Your task to perform on an android device: toggle location history Image 0: 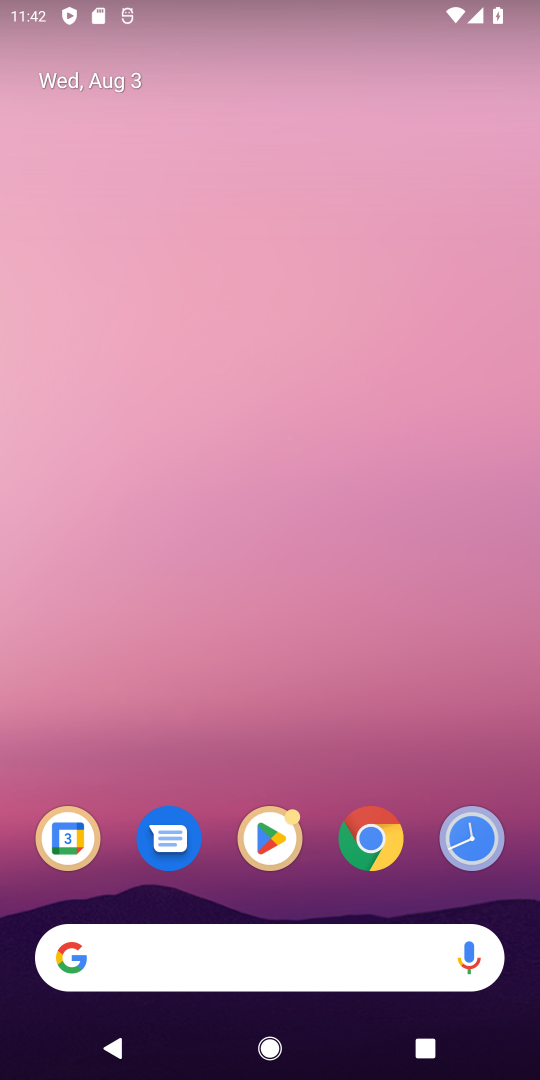
Step 0: drag from (363, 755) to (365, 314)
Your task to perform on an android device: toggle location history Image 1: 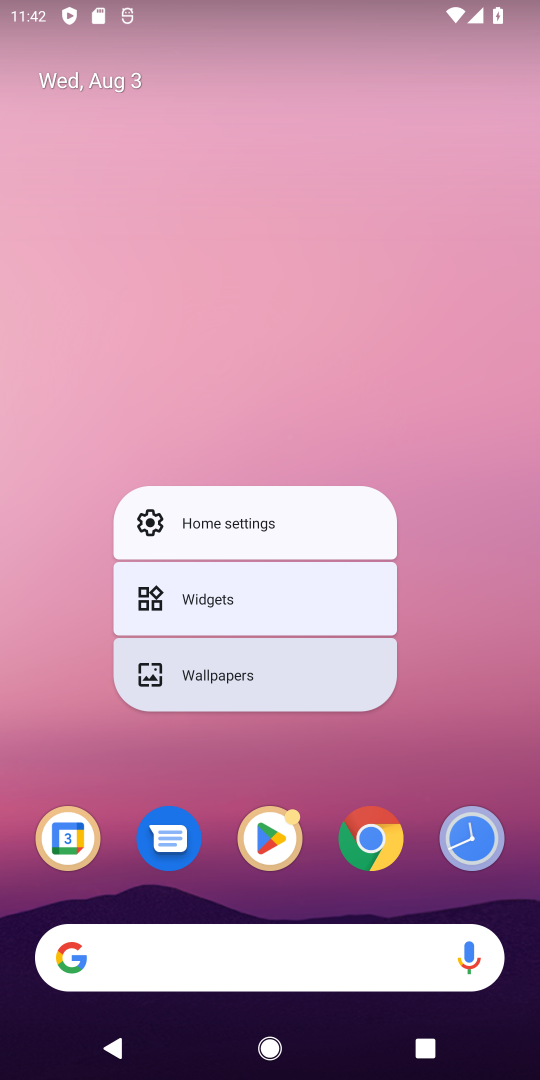
Step 1: click (475, 703)
Your task to perform on an android device: toggle location history Image 2: 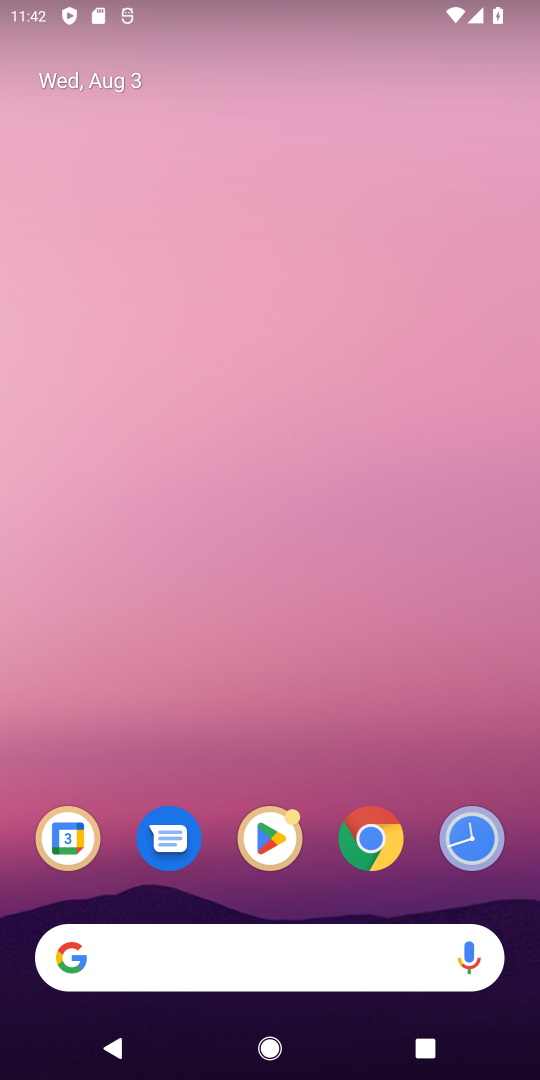
Step 2: drag from (403, 733) to (385, 243)
Your task to perform on an android device: toggle location history Image 3: 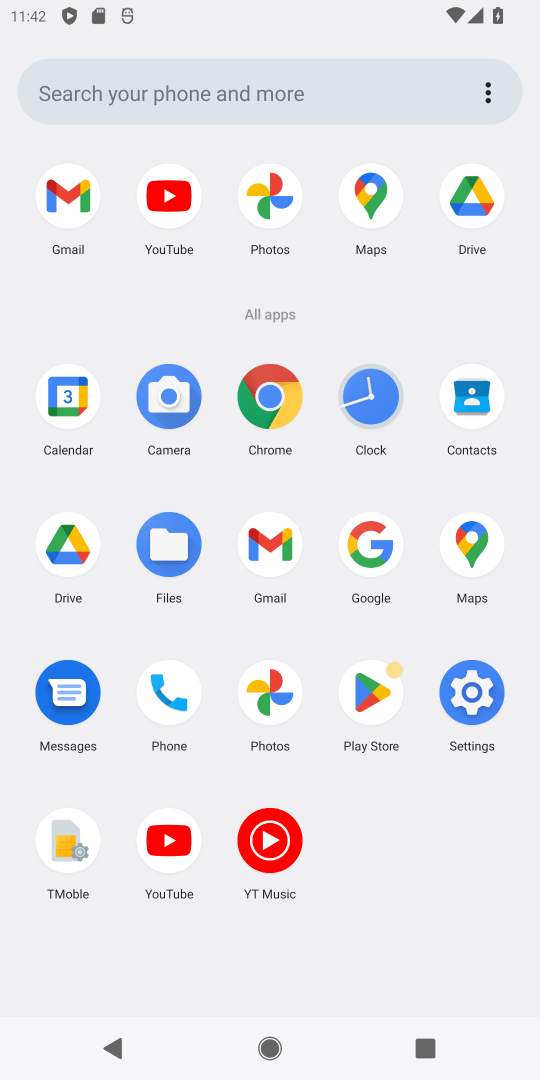
Step 3: click (489, 695)
Your task to perform on an android device: toggle location history Image 4: 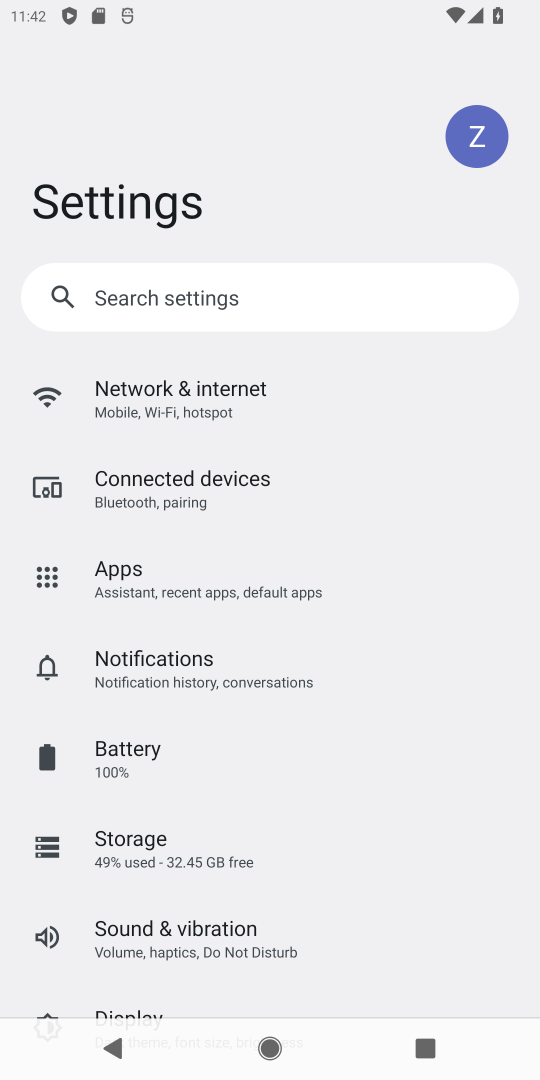
Step 4: drag from (262, 901) to (247, 457)
Your task to perform on an android device: toggle location history Image 5: 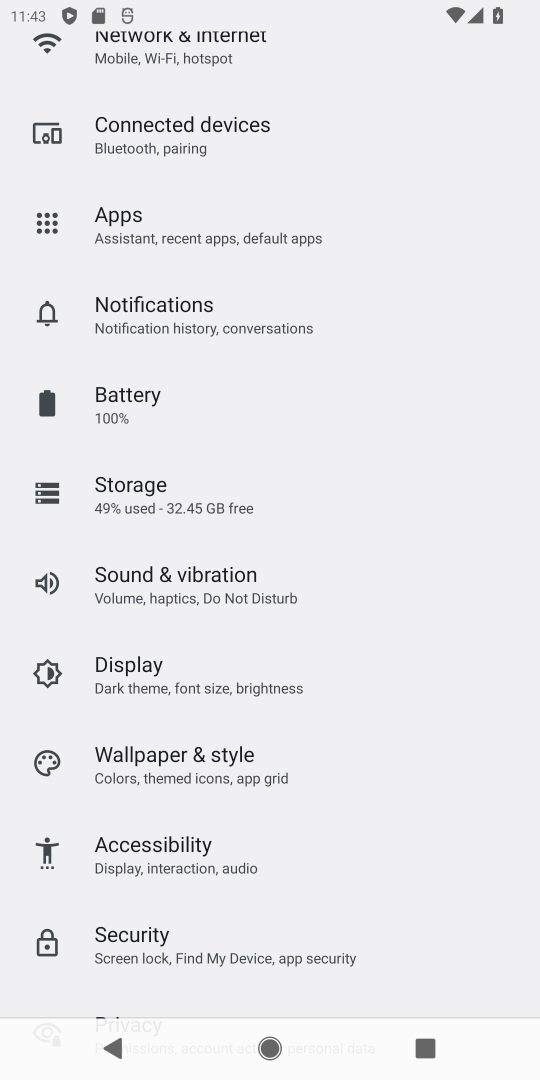
Step 5: drag from (295, 804) to (286, 248)
Your task to perform on an android device: toggle location history Image 6: 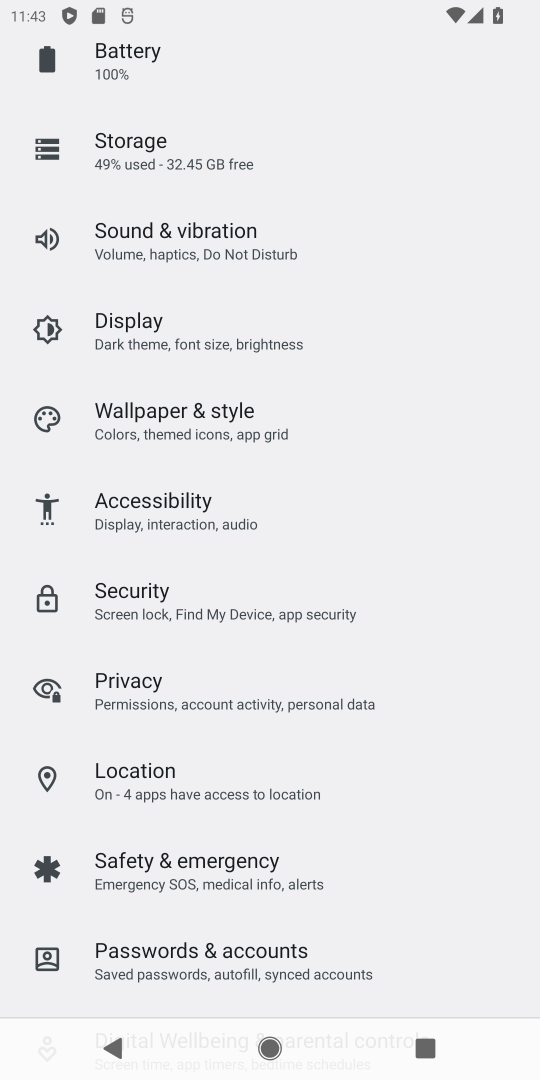
Step 6: click (206, 783)
Your task to perform on an android device: toggle location history Image 7: 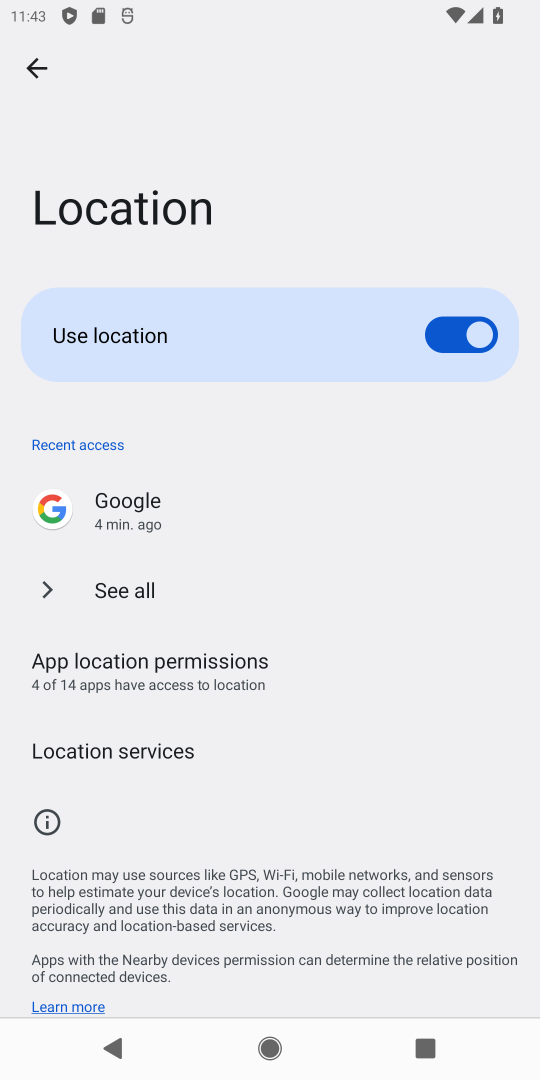
Step 7: drag from (411, 811) to (407, 452)
Your task to perform on an android device: toggle location history Image 8: 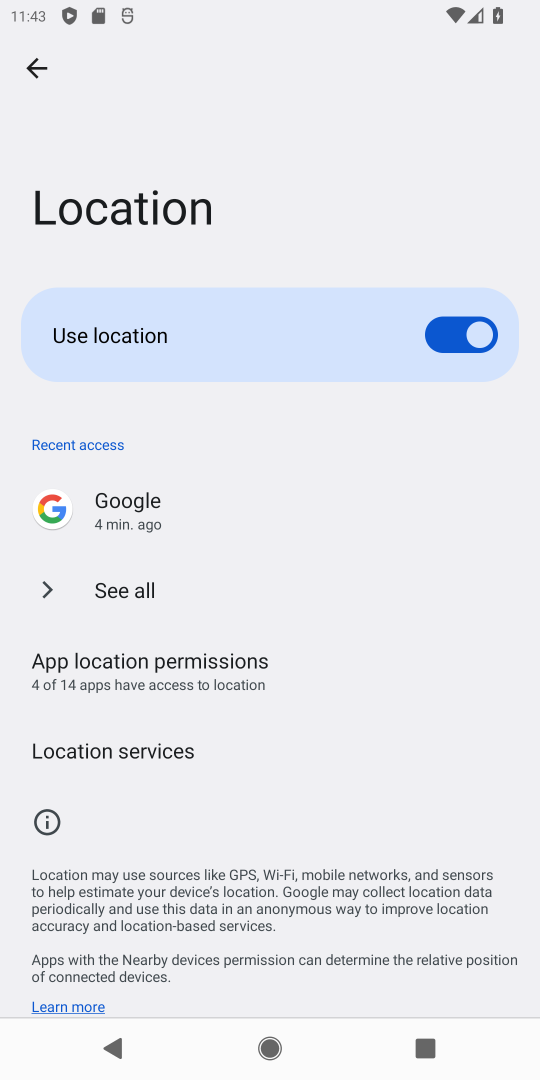
Step 8: click (175, 755)
Your task to perform on an android device: toggle location history Image 9: 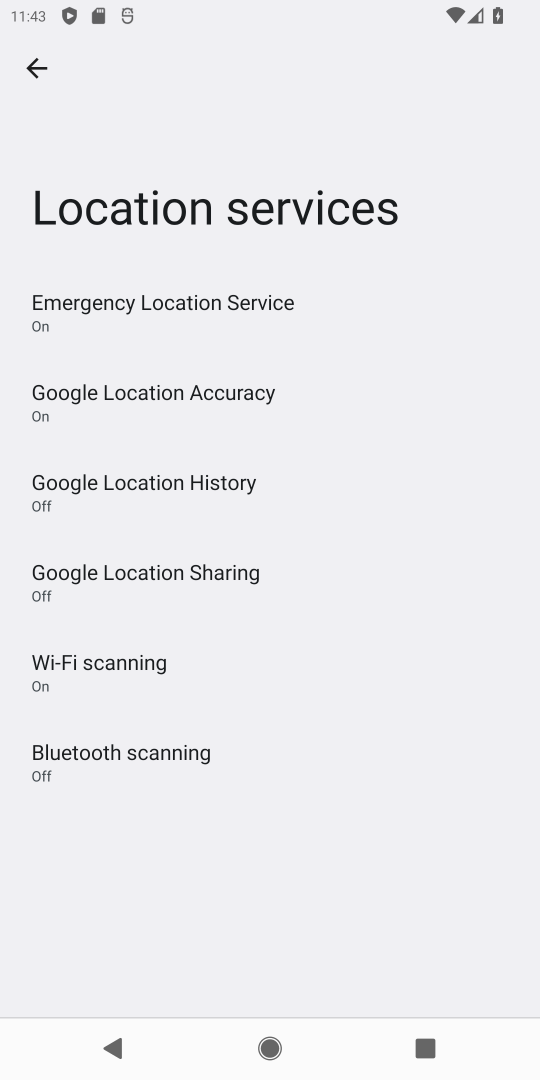
Step 9: click (239, 480)
Your task to perform on an android device: toggle location history Image 10: 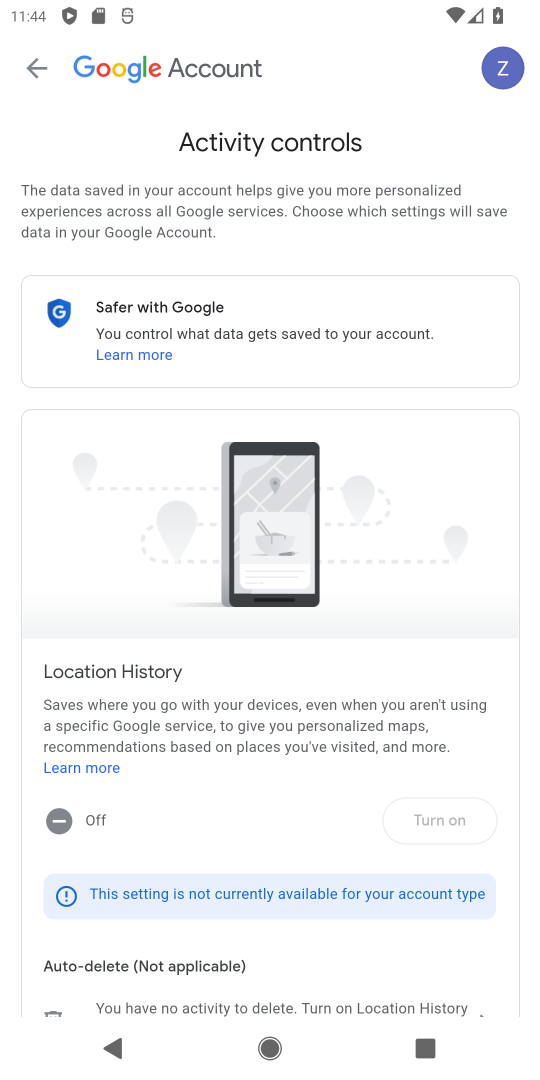
Step 10: task complete